Your task to perform on an android device: See recent photos Image 0: 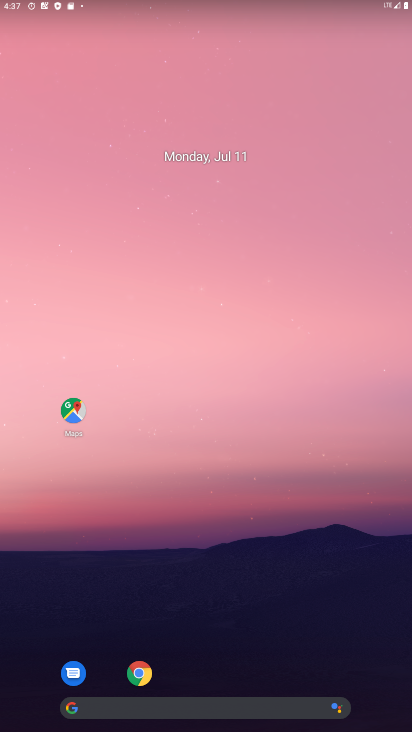
Step 0: drag from (211, 703) to (145, 120)
Your task to perform on an android device: See recent photos Image 1: 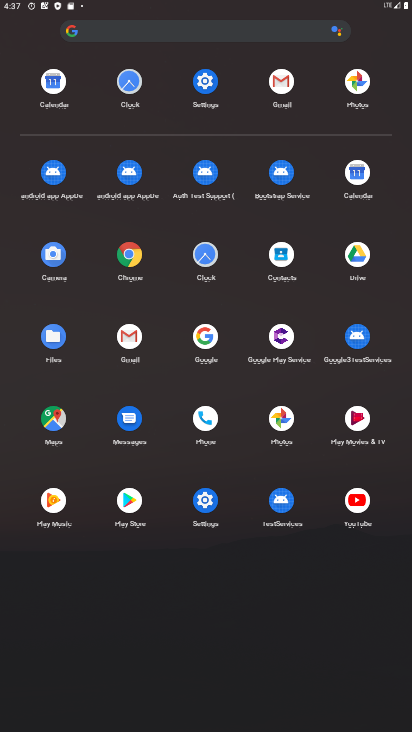
Step 1: click (282, 422)
Your task to perform on an android device: See recent photos Image 2: 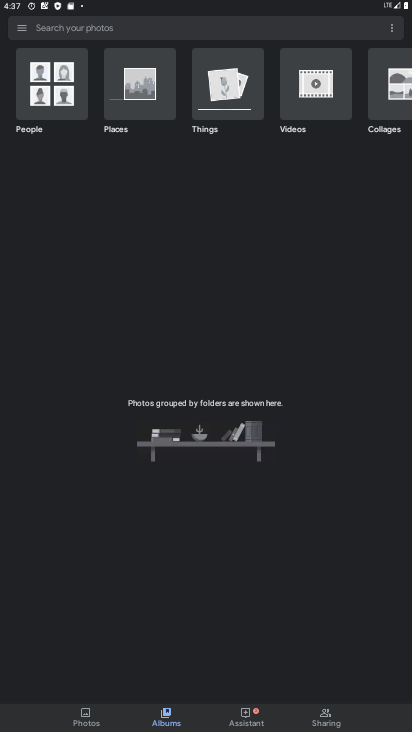
Step 2: click (87, 721)
Your task to perform on an android device: See recent photos Image 3: 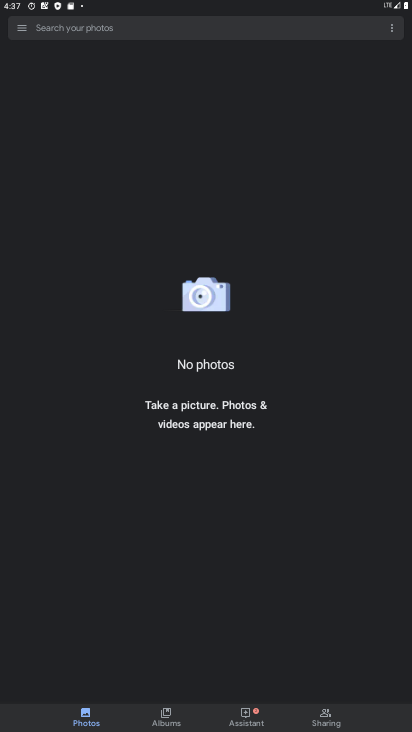
Step 3: click (24, 29)
Your task to perform on an android device: See recent photos Image 4: 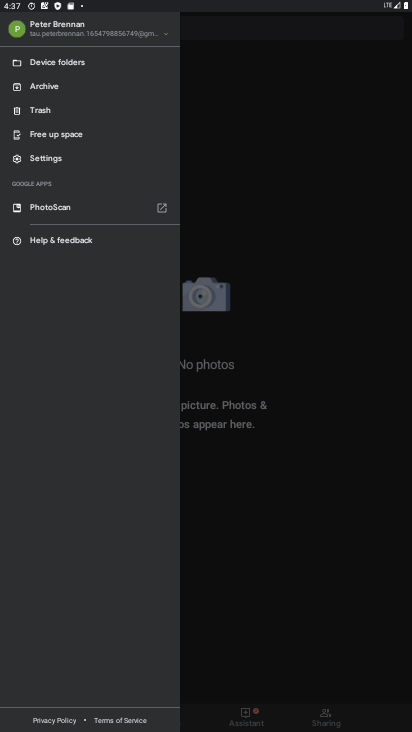
Step 4: click (62, 216)
Your task to perform on an android device: See recent photos Image 5: 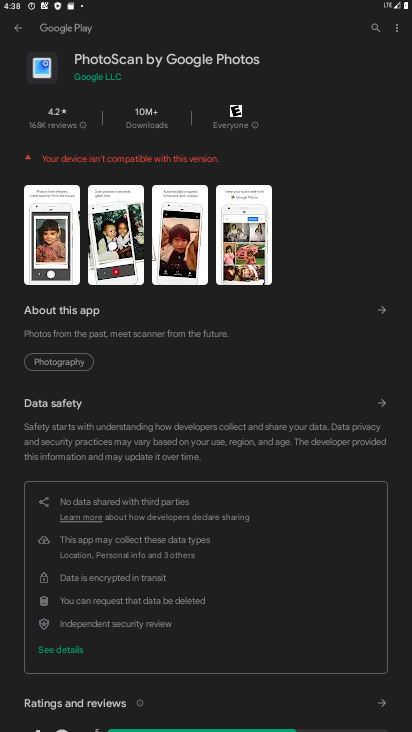
Step 5: press back button
Your task to perform on an android device: See recent photos Image 6: 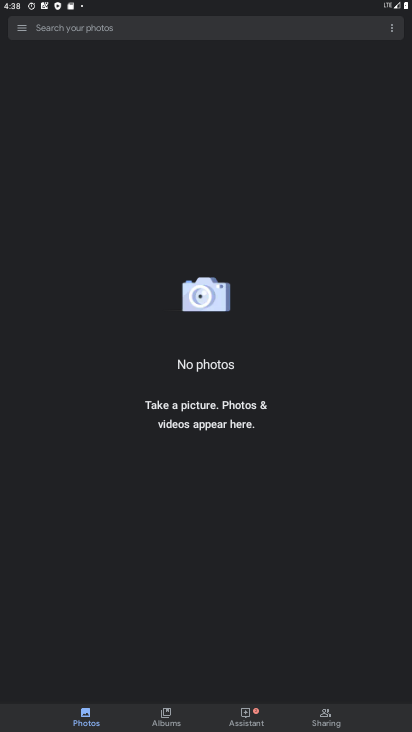
Step 6: click (18, 34)
Your task to perform on an android device: See recent photos Image 7: 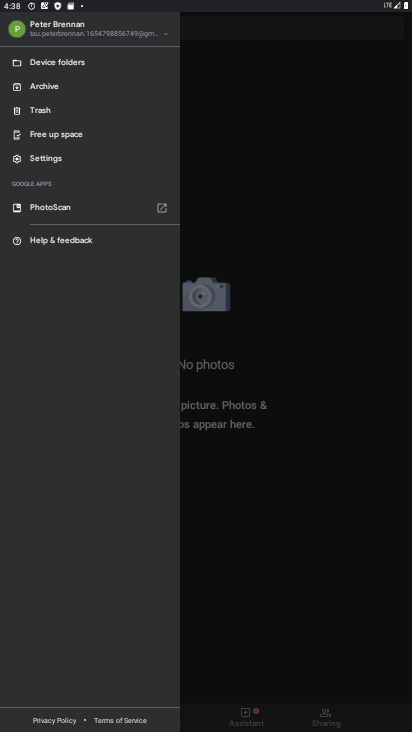
Step 7: click (54, 165)
Your task to perform on an android device: See recent photos Image 8: 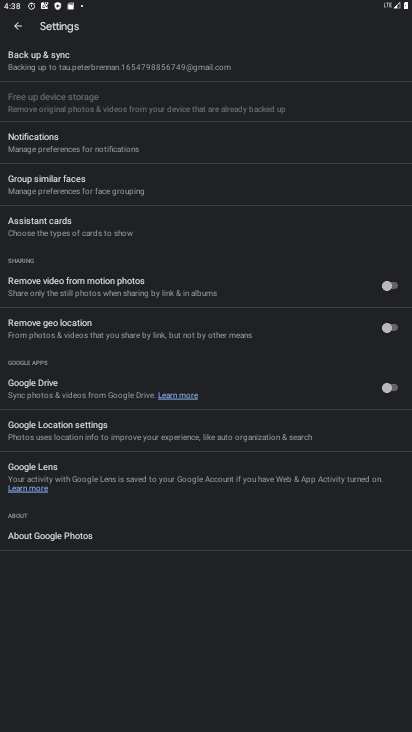
Step 8: press back button
Your task to perform on an android device: See recent photos Image 9: 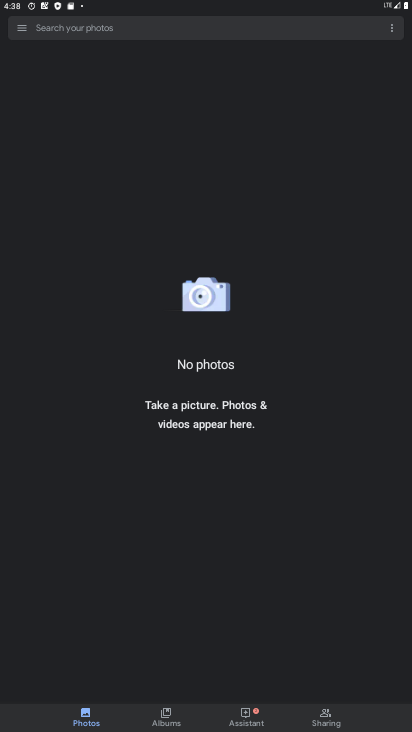
Step 9: click (20, 32)
Your task to perform on an android device: See recent photos Image 10: 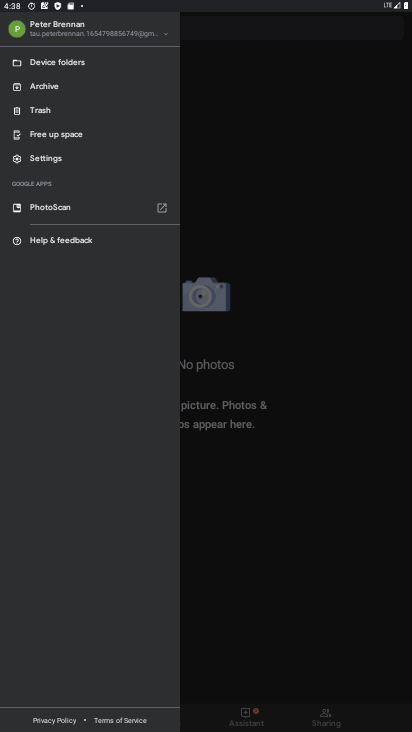
Step 10: click (296, 247)
Your task to perform on an android device: See recent photos Image 11: 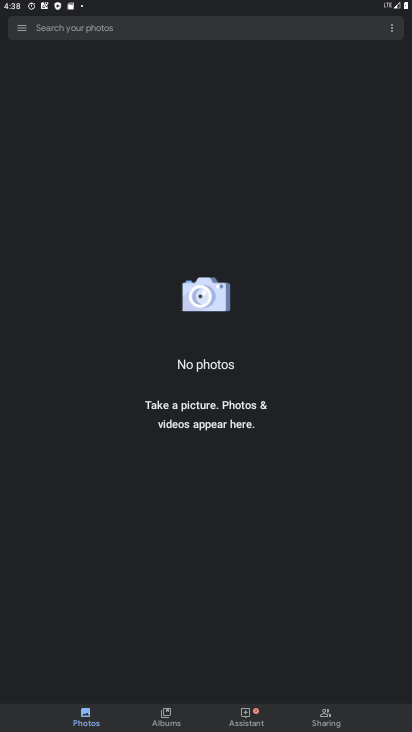
Step 11: task complete